Your task to perform on an android device: change the upload size in google photos Image 0: 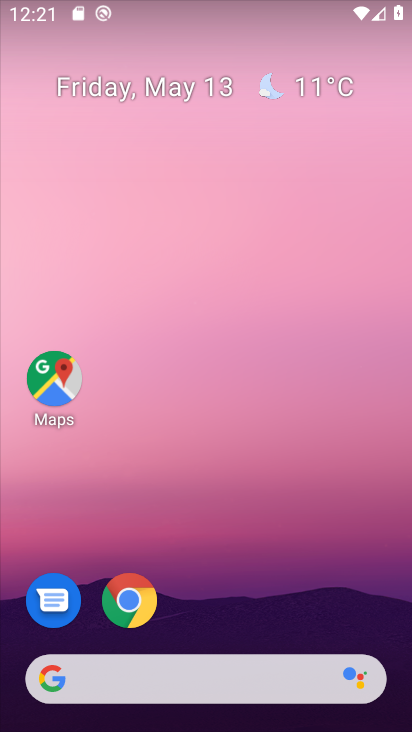
Step 0: drag from (198, 543) to (258, 230)
Your task to perform on an android device: change the upload size in google photos Image 1: 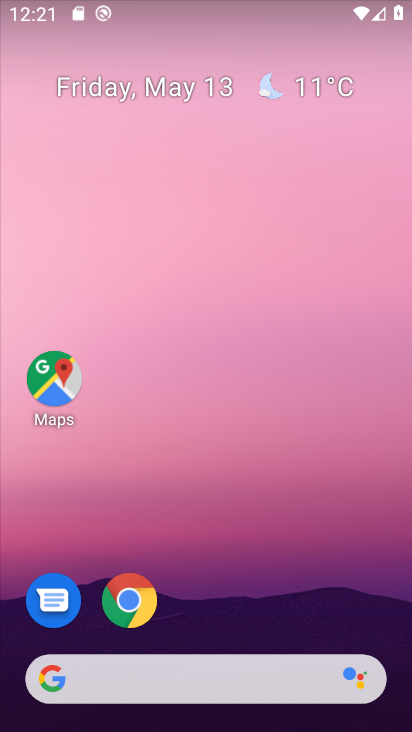
Step 1: drag from (226, 495) to (351, 181)
Your task to perform on an android device: change the upload size in google photos Image 2: 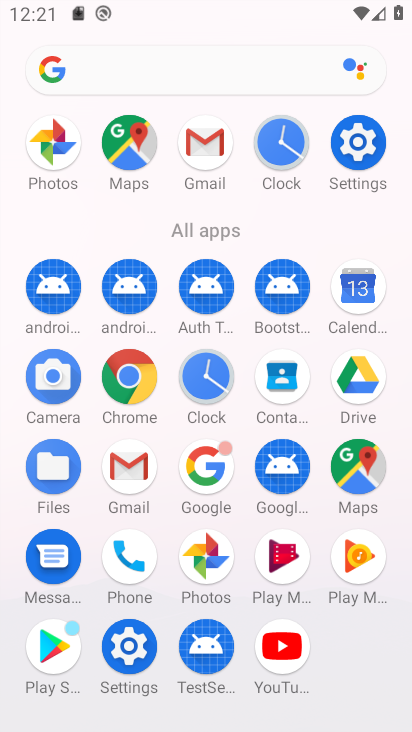
Step 2: click (199, 544)
Your task to perform on an android device: change the upload size in google photos Image 3: 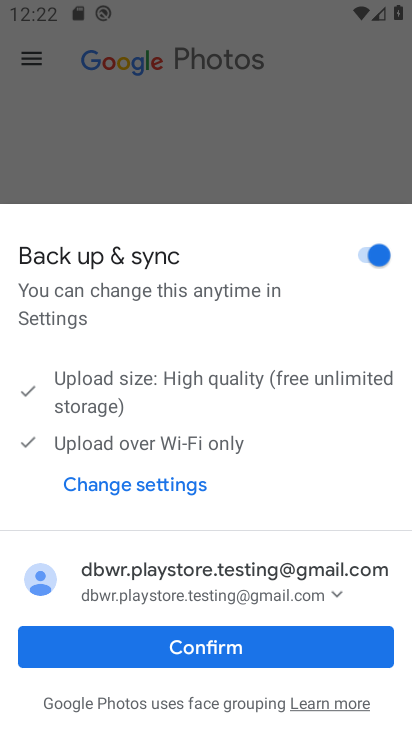
Step 3: click (229, 638)
Your task to perform on an android device: change the upload size in google photos Image 4: 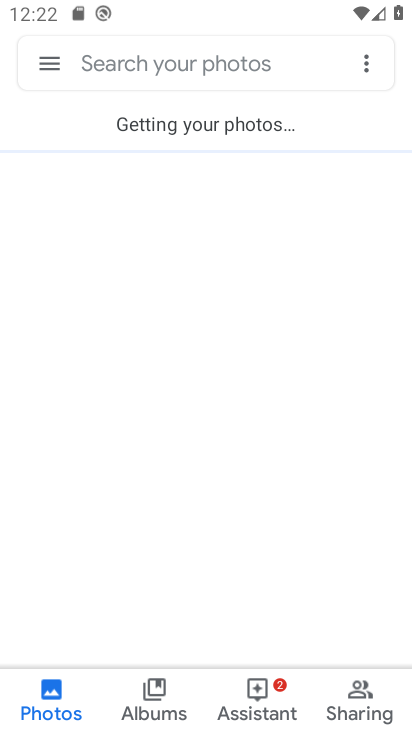
Step 4: click (55, 70)
Your task to perform on an android device: change the upload size in google photos Image 5: 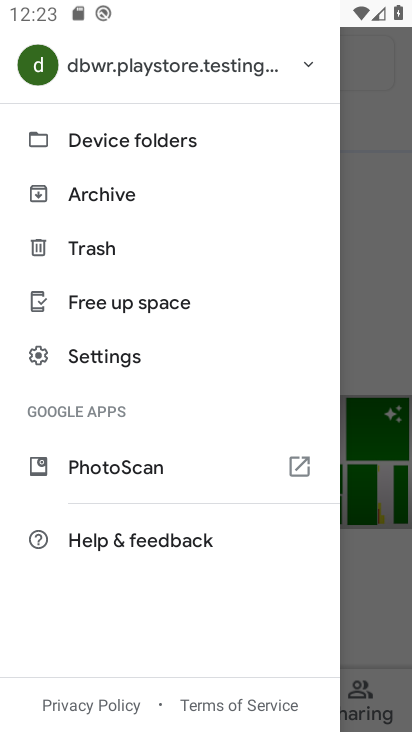
Step 5: click (113, 366)
Your task to perform on an android device: change the upload size in google photos Image 6: 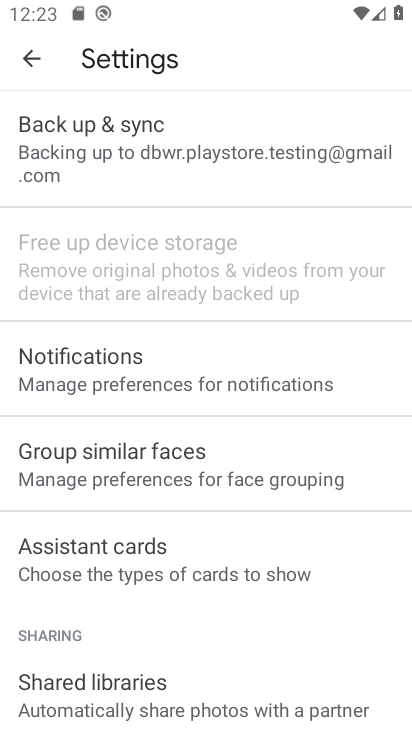
Step 6: click (169, 165)
Your task to perform on an android device: change the upload size in google photos Image 7: 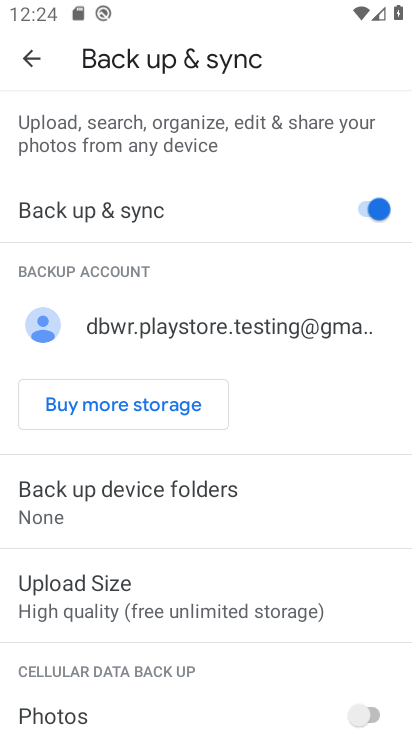
Step 7: click (128, 603)
Your task to perform on an android device: change the upload size in google photos Image 8: 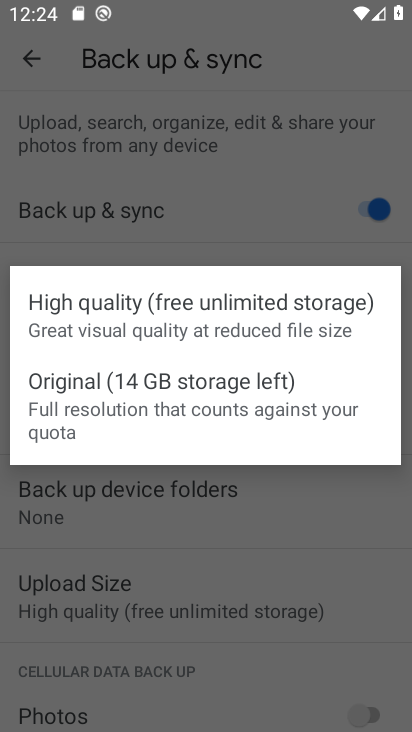
Step 8: click (218, 416)
Your task to perform on an android device: change the upload size in google photos Image 9: 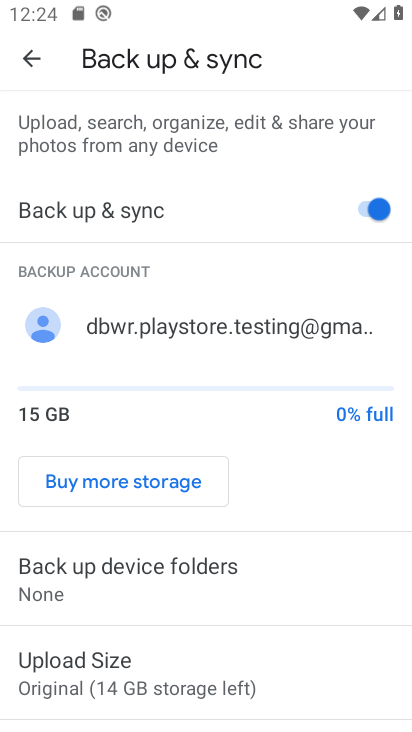
Step 9: task complete